Your task to perform on an android device: open device folders in google photos Image 0: 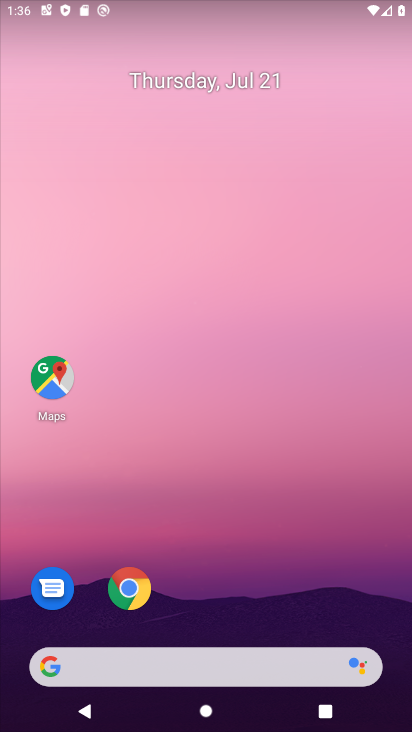
Step 0: drag from (215, 610) to (95, 37)
Your task to perform on an android device: open device folders in google photos Image 1: 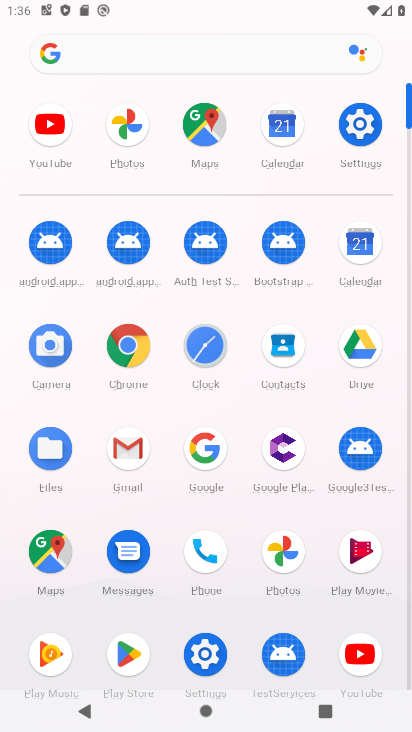
Step 1: click (274, 552)
Your task to perform on an android device: open device folders in google photos Image 2: 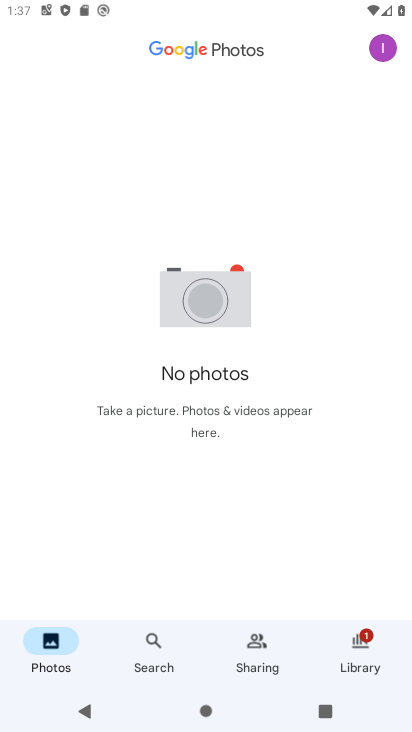
Step 2: click (366, 669)
Your task to perform on an android device: open device folders in google photos Image 3: 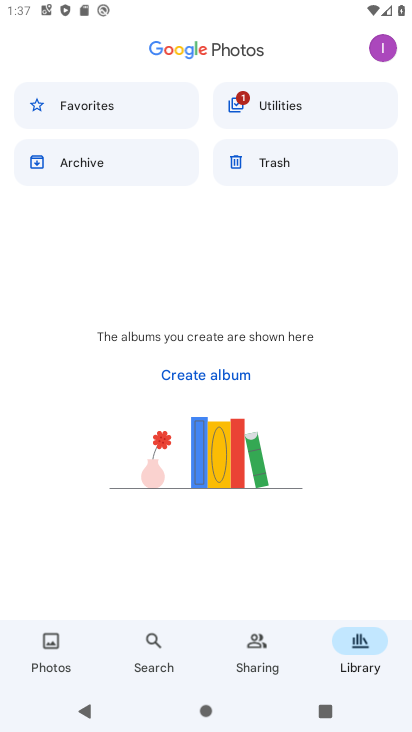
Step 3: click (376, 52)
Your task to perform on an android device: open device folders in google photos Image 4: 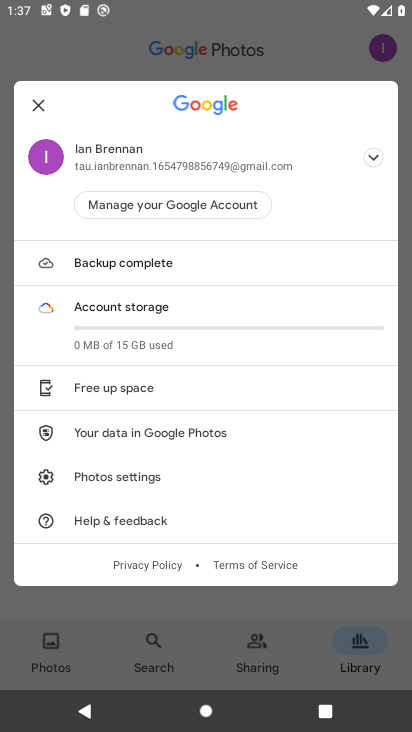
Step 4: click (124, 479)
Your task to perform on an android device: open device folders in google photos Image 5: 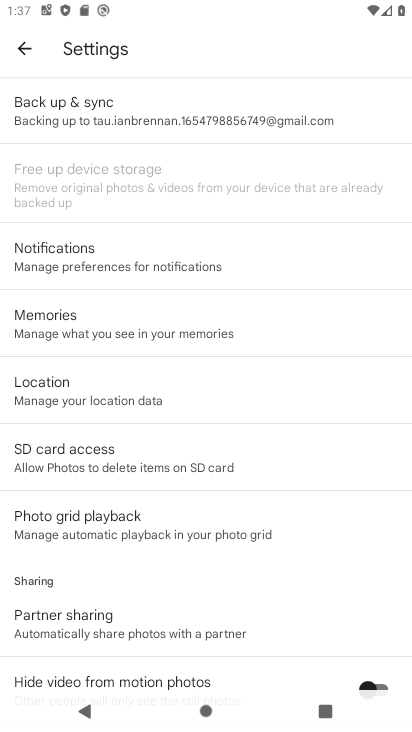
Step 5: task complete